Your task to perform on an android device: What is the recent news? Image 0: 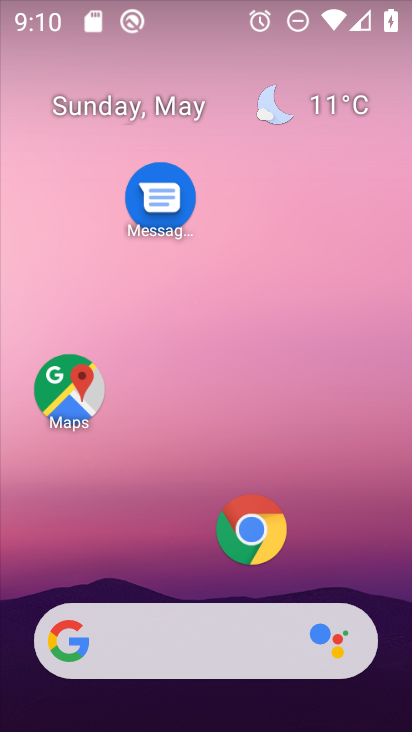
Step 0: press home button
Your task to perform on an android device: What is the recent news? Image 1: 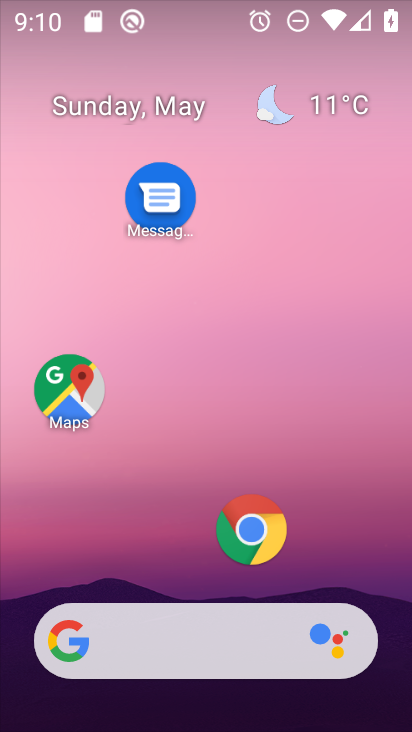
Step 1: task complete